Your task to perform on an android device: turn off sleep mode Image 0: 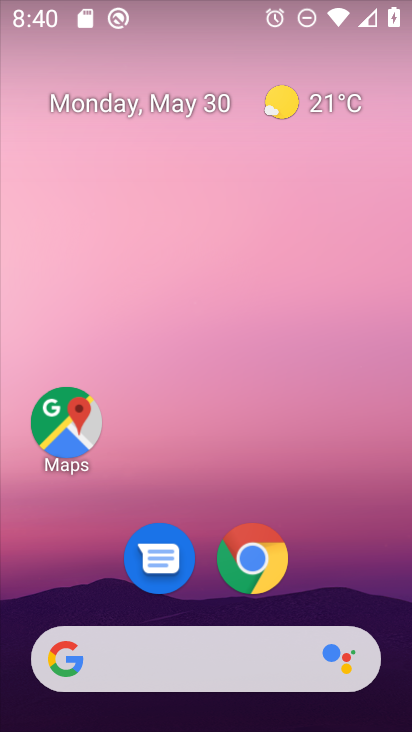
Step 0: drag from (315, 526) to (183, 48)
Your task to perform on an android device: turn off sleep mode Image 1: 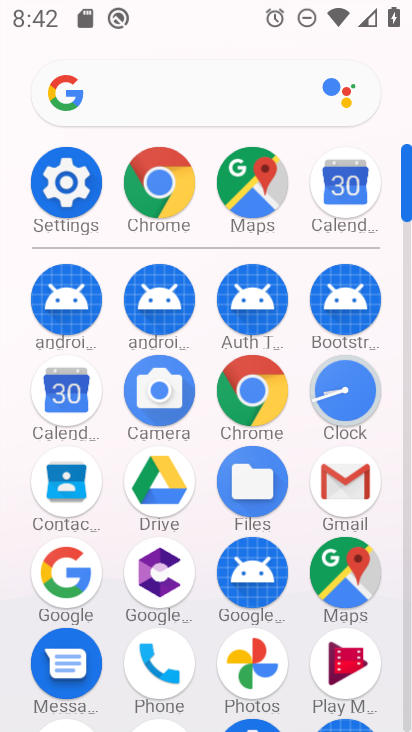
Step 1: click (56, 175)
Your task to perform on an android device: turn off sleep mode Image 2: 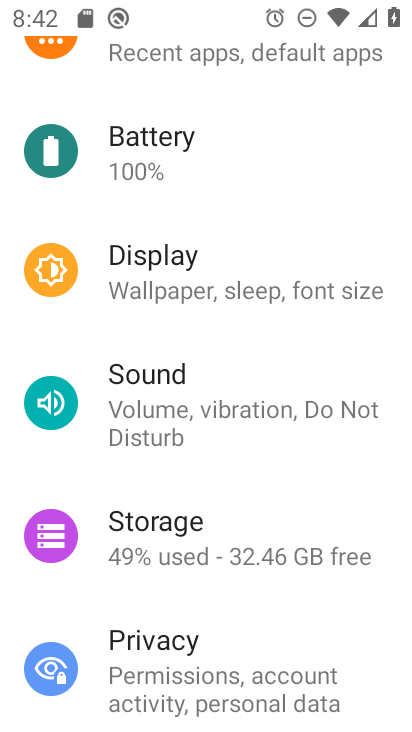
Step 2: click (192, 280)
Your task to perform on an android device: turn off sleep mode Image 3: 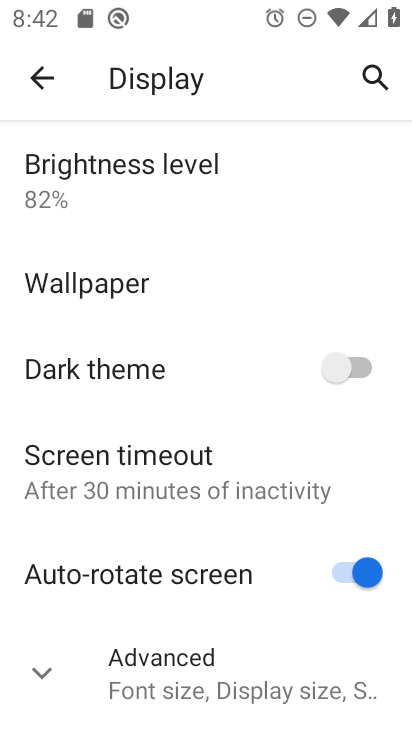
Step 3: task complete